Your task to perform on an android device: empty trash in google photos Image 0: 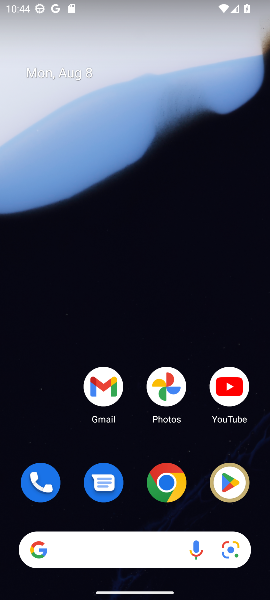
Step 0: drag from (117, 441) to (172, 10)
Your task to perform on an android device: empty trash in google photos Image 1: 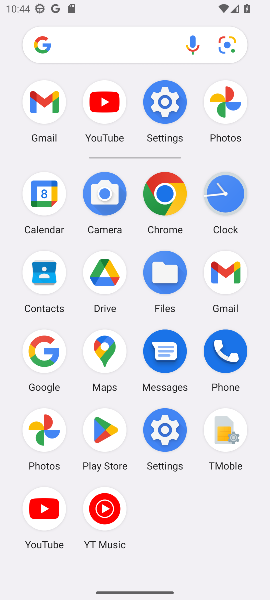
Step 1: click (37, 433)
Your task to perform on an android device: empty trash in google photos Image 2: 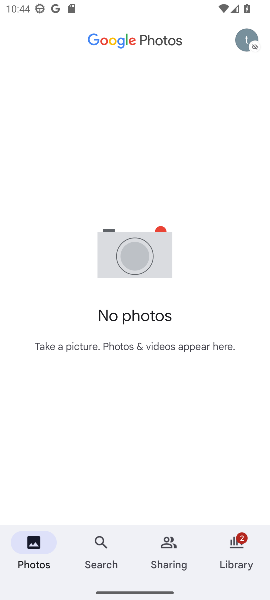
Step 2: click (241, 544)
Your task to perform on an android device: empty trash in google photos Image 3: 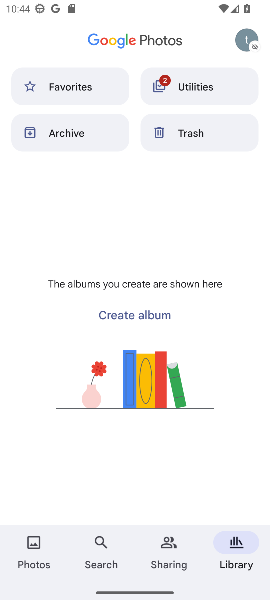
Step 3: click (184, 131)
Your task to perform on an android device: empty trash in google photos Image 4: 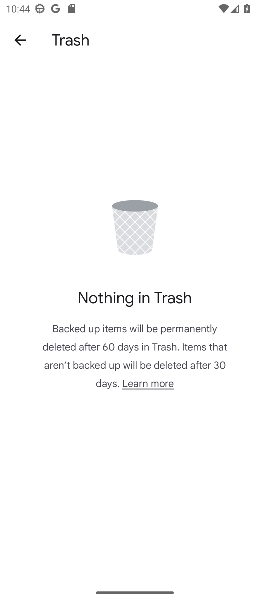
Step 4: task complete